Your task to perform on an android device: Search for "dell alienware" on walmart, select the first entry, add it to the cart, then select checkout. Image 0: 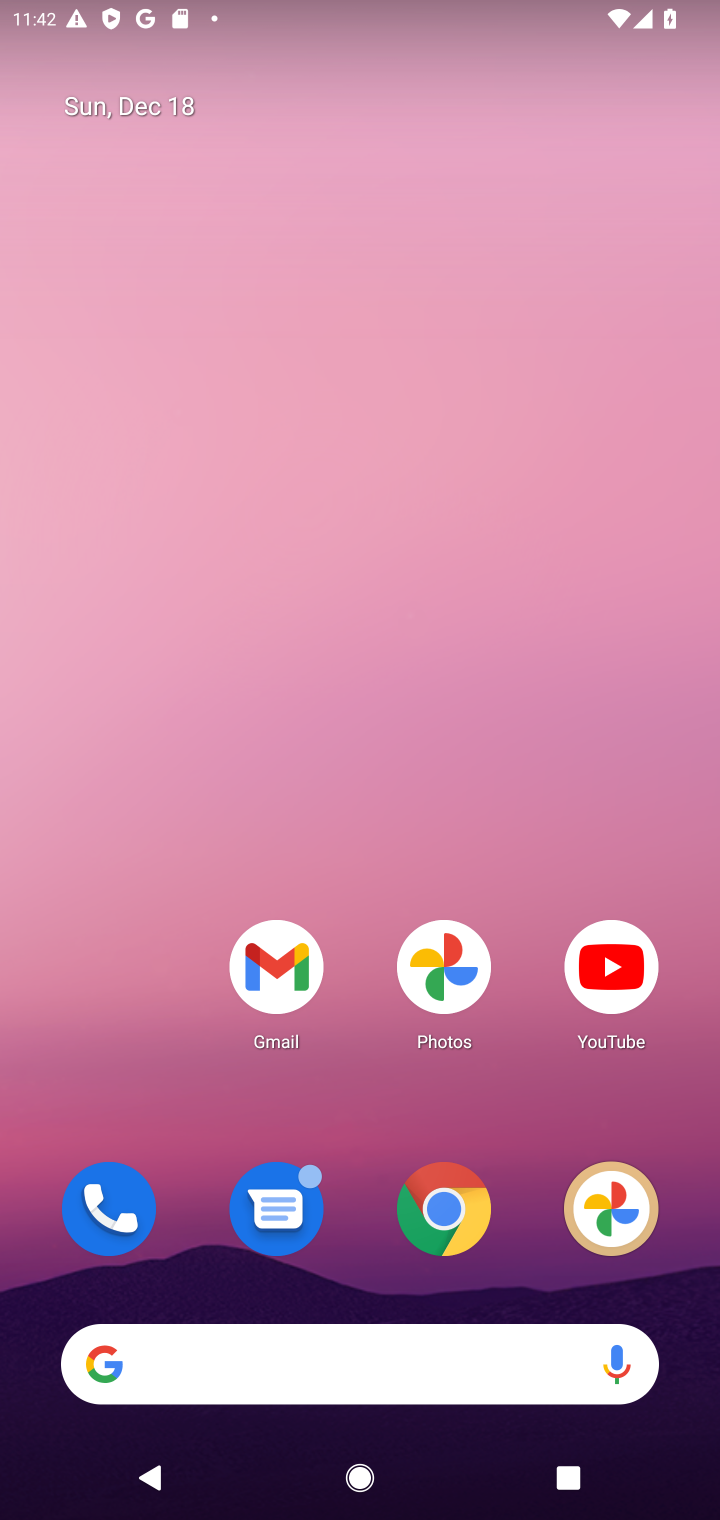
Step 0: task complete